Your task to perform on an android device: open app "Roku - Official Remote Control" (install if not already installed) Image 0: 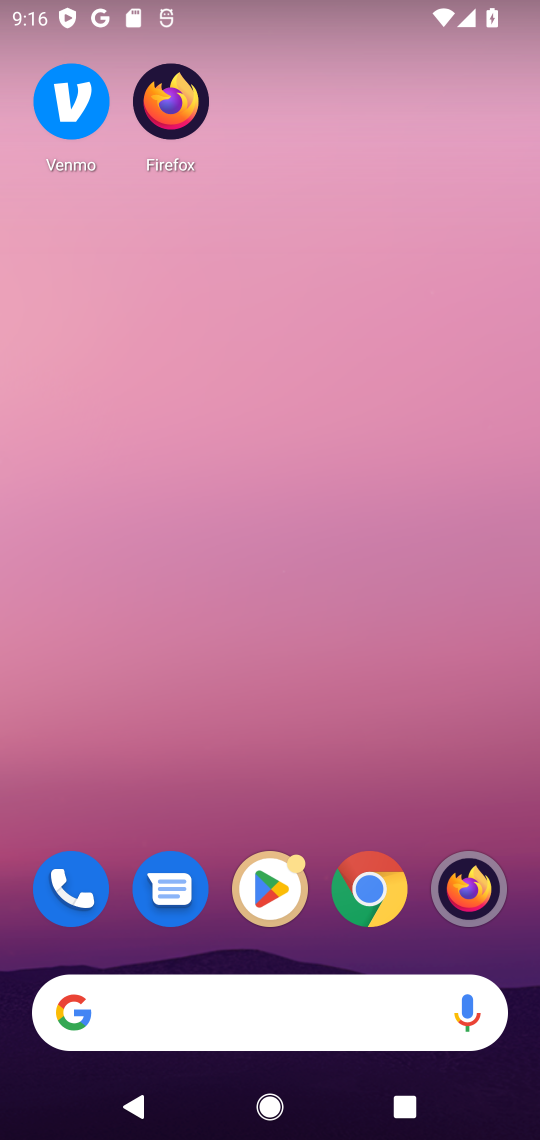
Step 0: click (270, 881)
Your task to perform on an android device: open app "Roku - Official Remote Control" (install if not already installed) Image 1: 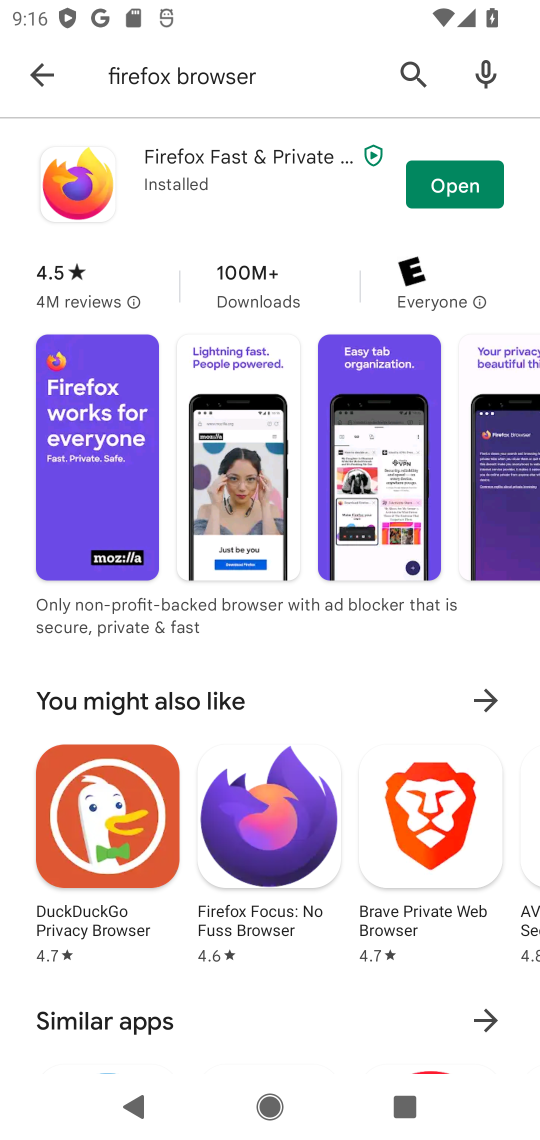
Step 1: click (55, 75)
Your task to perform on an android device: open app "Roku - Official Remote Control" (install if not already installed) Image 2: 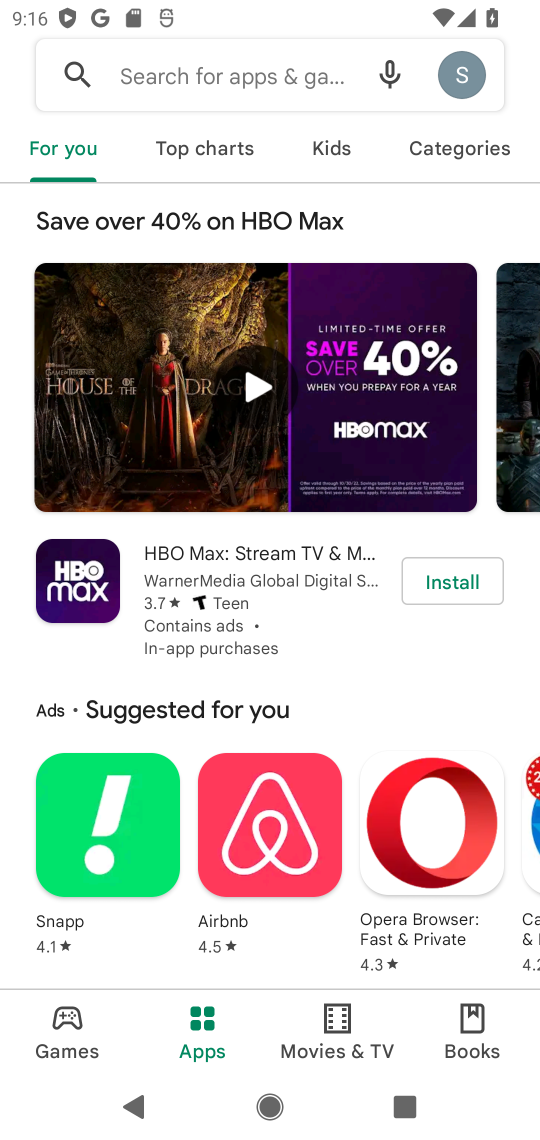
Step 2: click (177, 67)
Your task to perform on an android device: open app "Roku - Official Remote Control" (install if not already installed) Image 3: 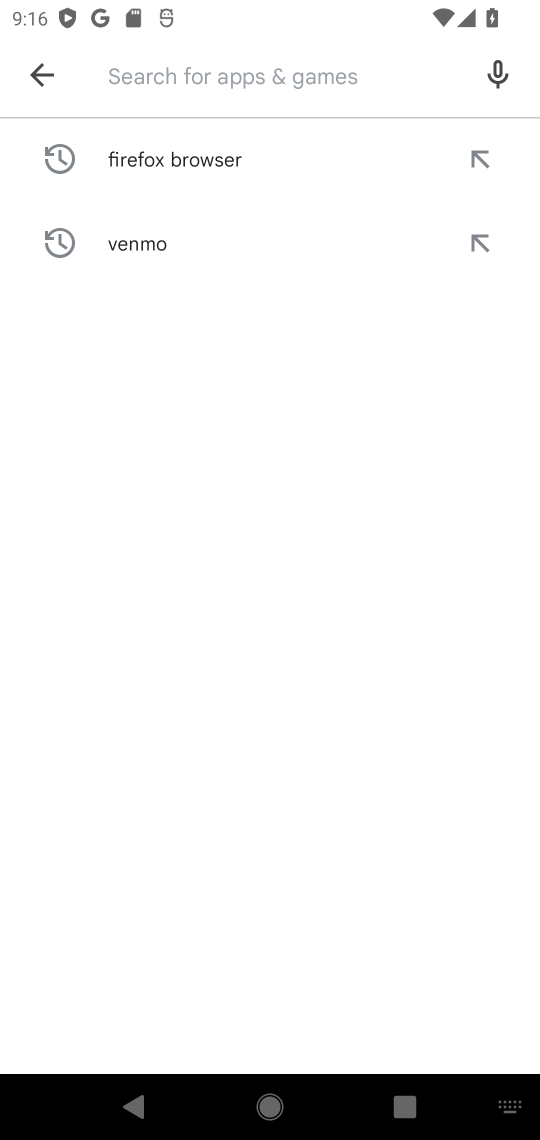
Step 3: type "Roku"
Your task to perform on an android device: open app "Roku - Official Remote Control" (install if not already installed) Image 4: 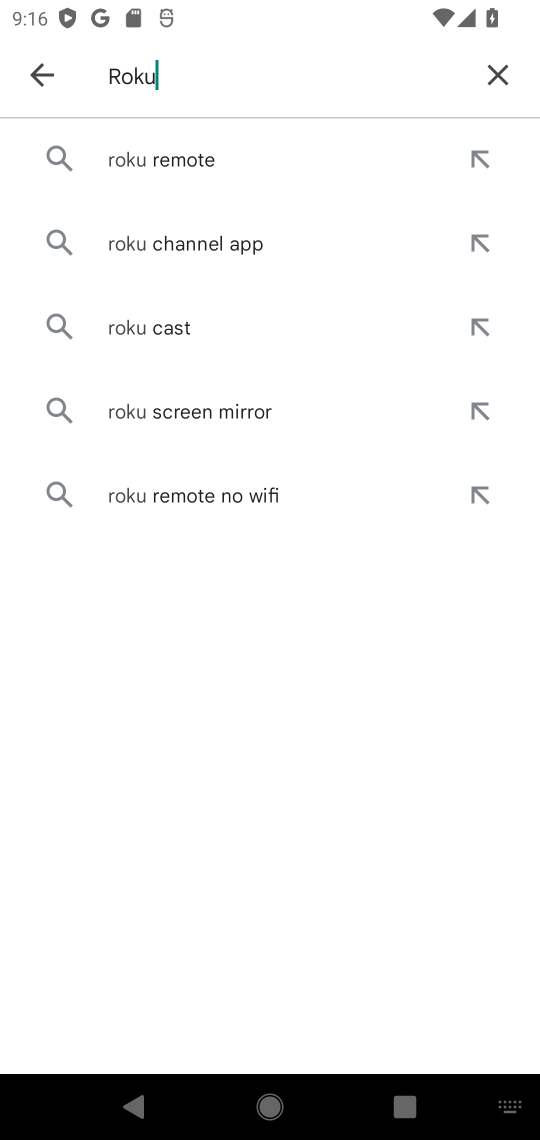
Step 4: click (165, 166)
Your task to perform on an android device: open app "Roku - Official Remote Control" (install if not already installed) Image 5: 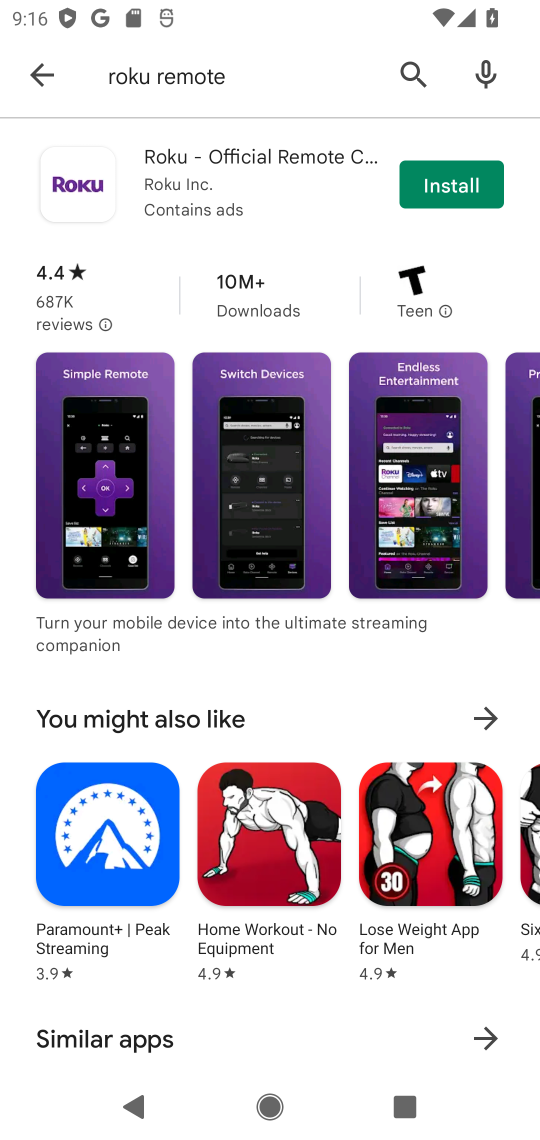
Step 5: click (436, 189)
Your task to perform on an android device: open app "Roku - Official Remote Control" (install if not already installed) Image 6: 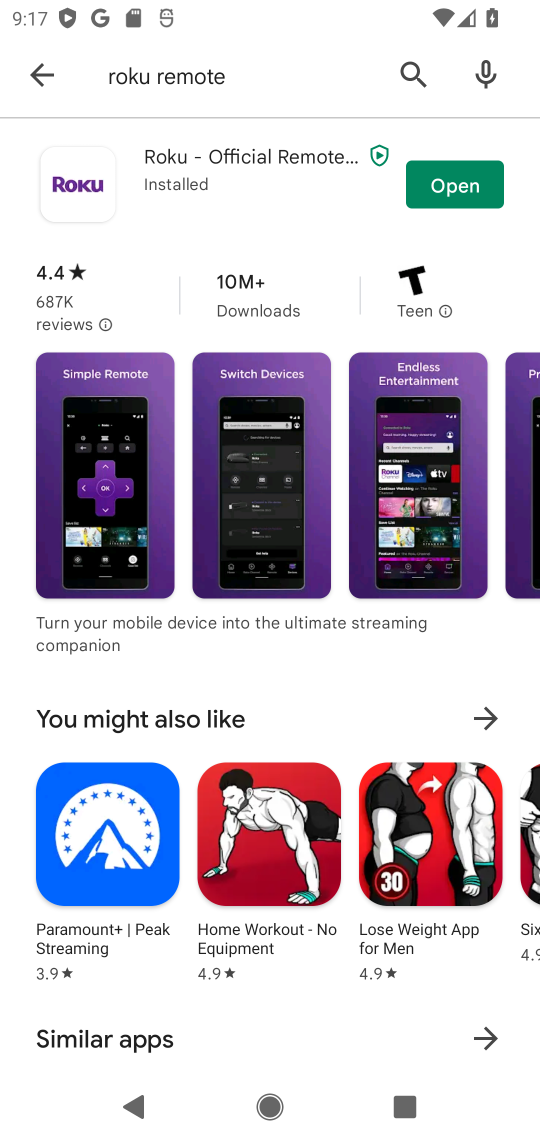
Step 6: click (436, 189)
Your task to perform on an android device: open app "Roku - Official Remote Control" (install if not already installed) Image 7: 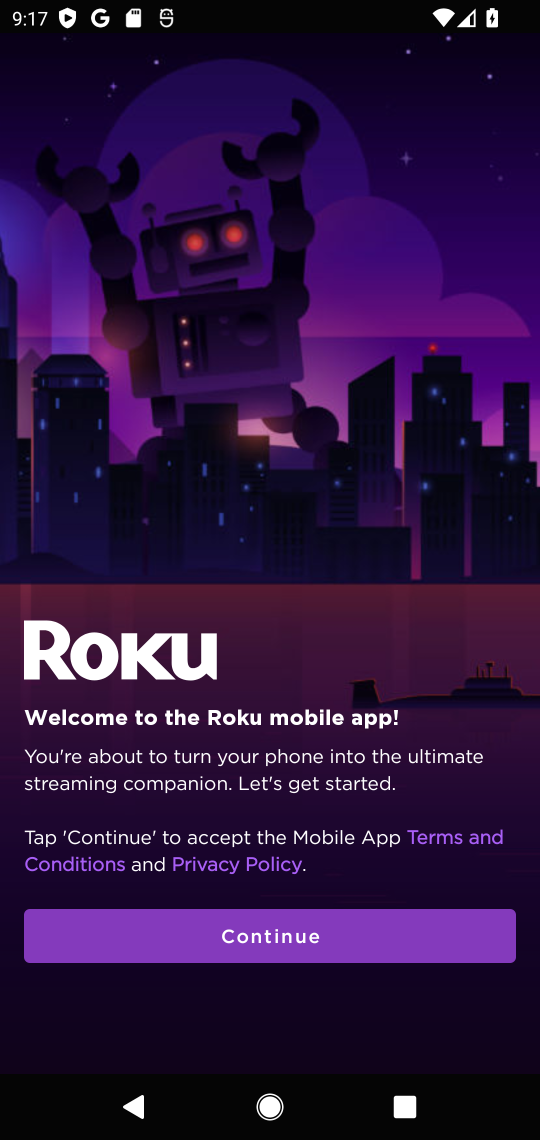
Step 7: task complete